Your task to perform on an android device: make emails show in primary in the gmail app Image 0: 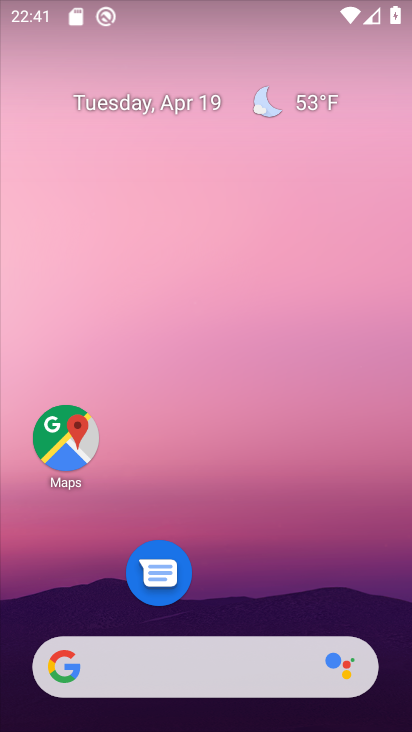
Step 0: drag from (209, 614) to (197, 2)
Your task to perform on an android device: make emails show in primary in the gmail app Image 1: 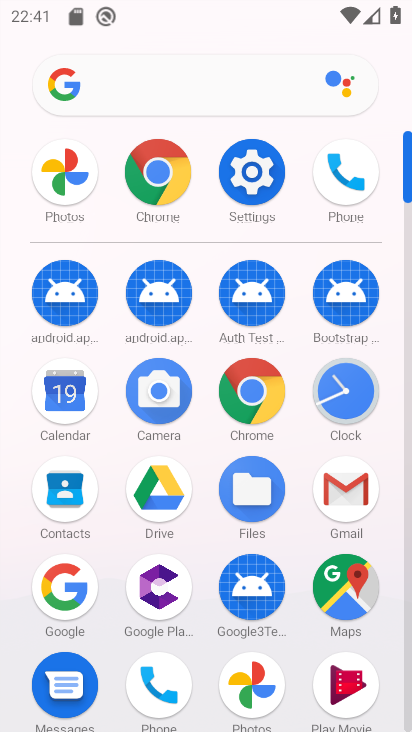
Step 1: click (344, 480)
Your task to perform on an android device: make emails show in primary in the gmail app Image 2: 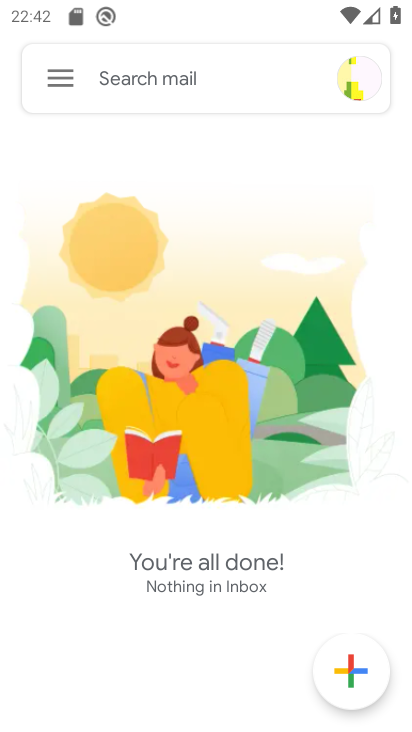
Step 2: click (53, 66)
Your task to perform on an android device: make emails show in primary in the gmail app Image 3: 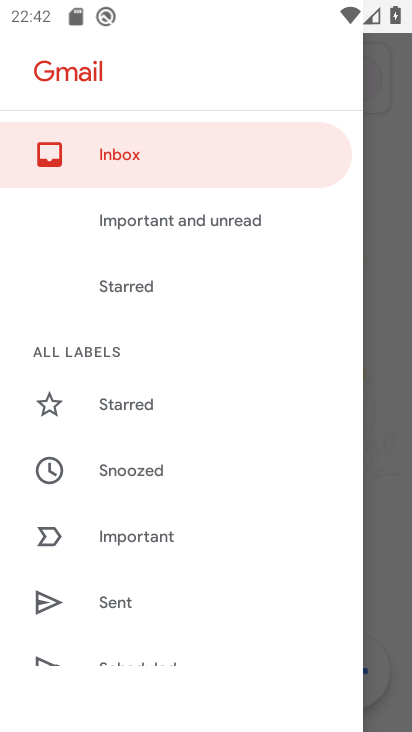
Step 3: drag from (178, 630) to (205, 125)
Your task to perform on an android device: make emails show in primary in the gmail app Image 4: 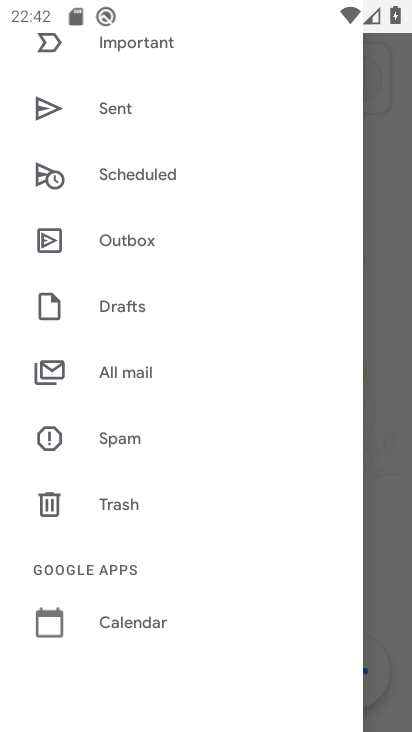
Step 4: drag from (187, 623) to (220, 150)
Your task to perform on an android device: make emails show in primary in the gmail app Image 5: 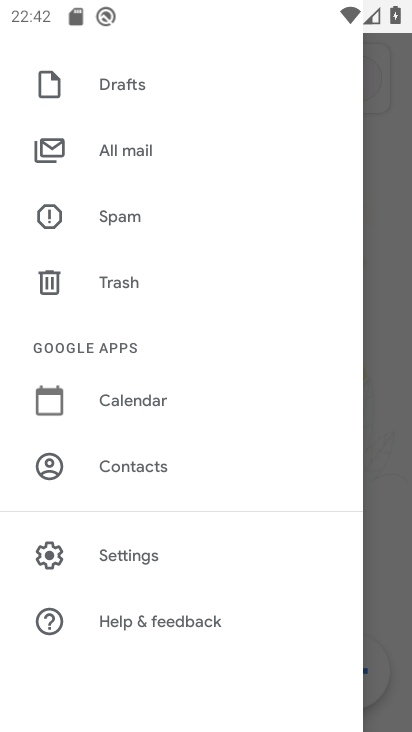
Step 5: click (166, 548)
Your task to perform on an android device: make emails show in primary in the gmail app Image 6: 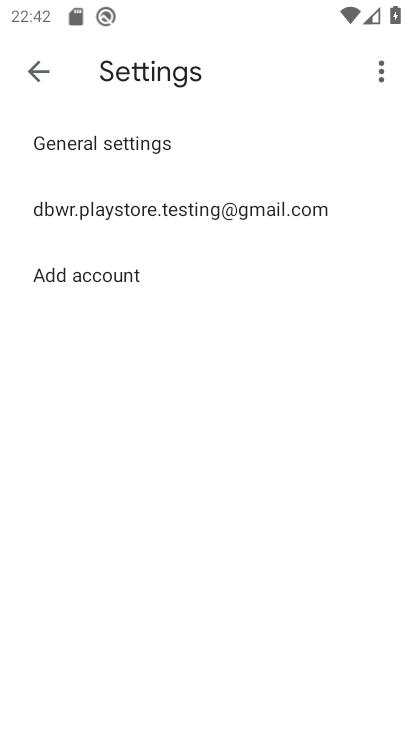
Step 6: click (228, 204)
Your task to perform on an android device: make emails show in primary in the gmail app Image 7: 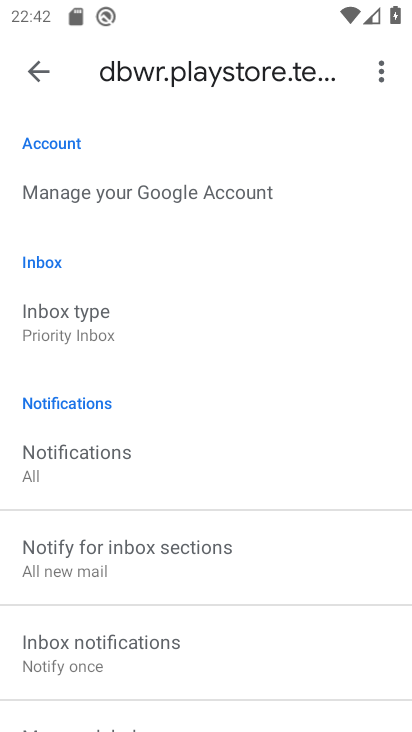
Step 7: click (131, 314)
Your task to perform on an android device: make emails show in primary in the gmail app Image 8: 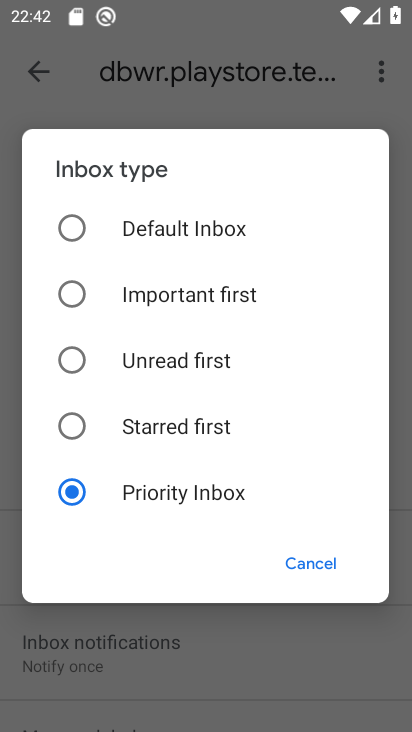
Step 8: click (64, 221)
Your task to perform on an android device: make emails show in primary in the gmail app Image 9: 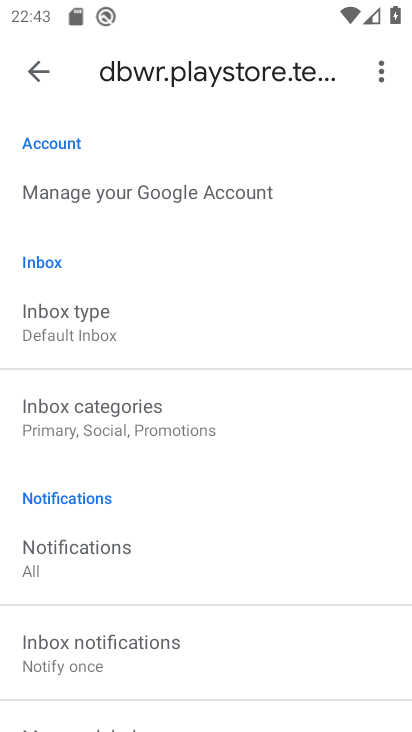
Step 9: task complete